Your task to perform on an android device: Do I have any events this weekend? Image 0: 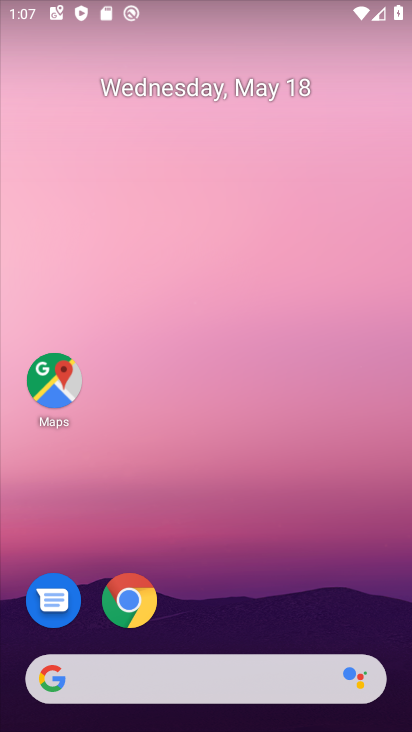
Step 0: drag from (236, 565) to (141, 196)
Your task to perform on an android device: Do I have any events this weekend? Image 1: 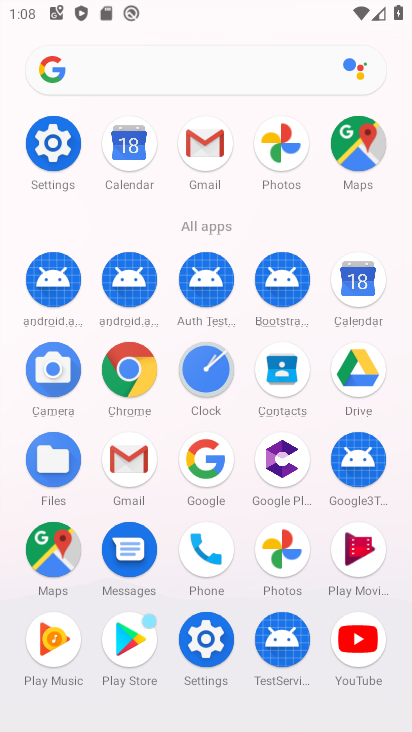
Step 1: click (362, 283)
Your task to perform on an android device: Do I have any events this weekend? Image 2: 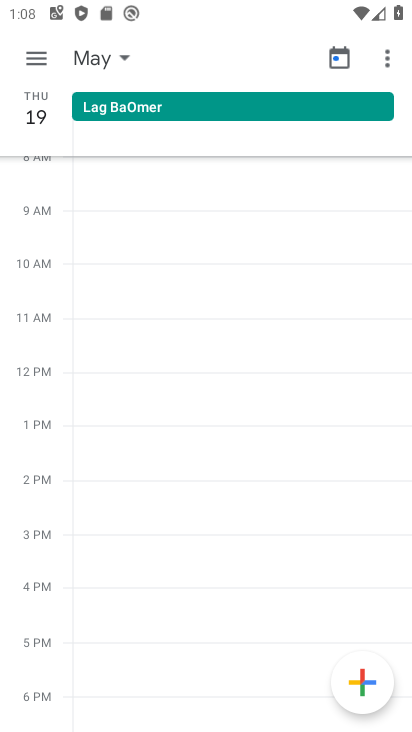
Step 2: click (118, 54)
Your task to perform on an android device: Do I have any events this weekend? Image 3: 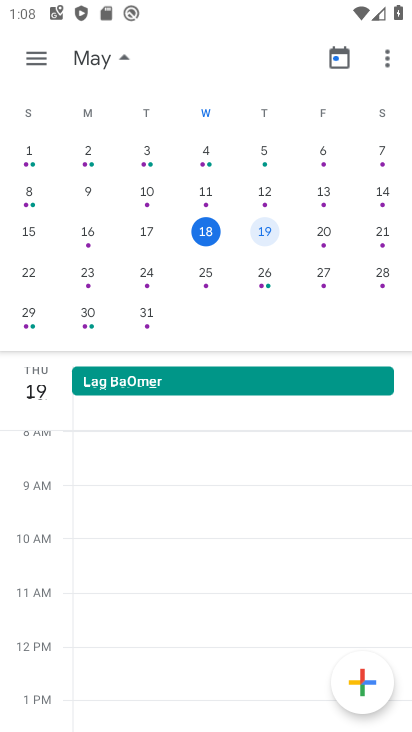
Step 3: click (342, 63)
Your task to perform on an android device: Do I have any events this weekend? Image 4: 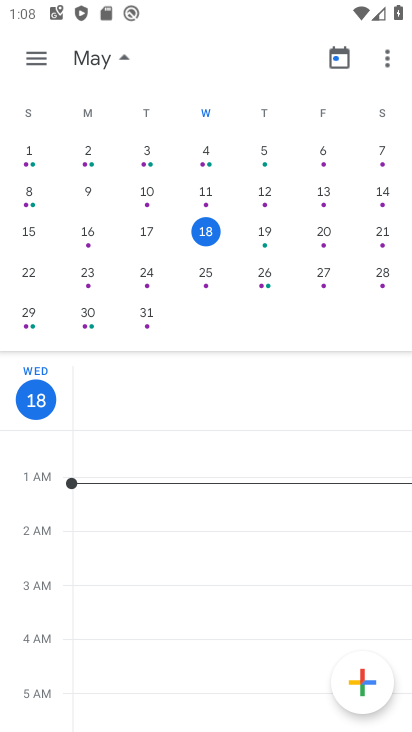
Step 4: click (383, 229)
Your task to perform on an android device: Do I have any events this weekend? Image 5: 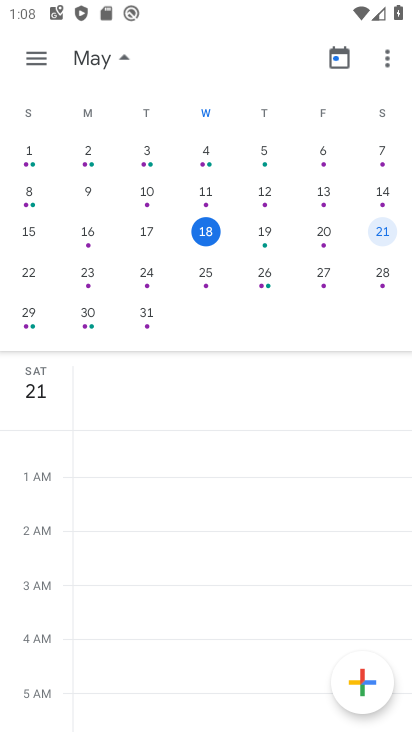
Step 5: click (35, 59)
Your task to perform on an android device: Do I have any events this weekend? Image 6: 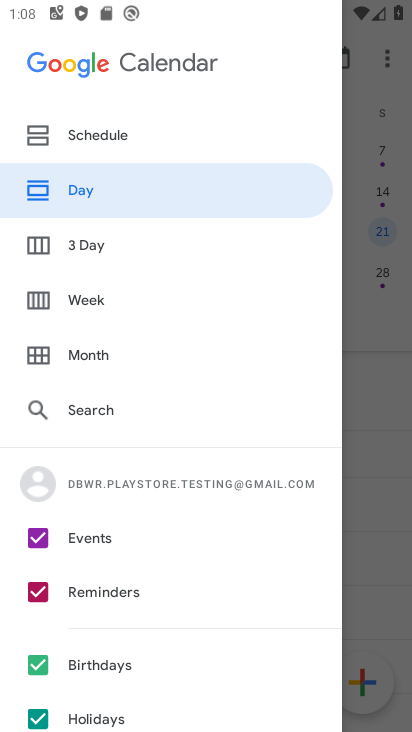
Step 6: click (111, 298)
Your task to perform on an android device: Do I have any events this weekend? Image 7: 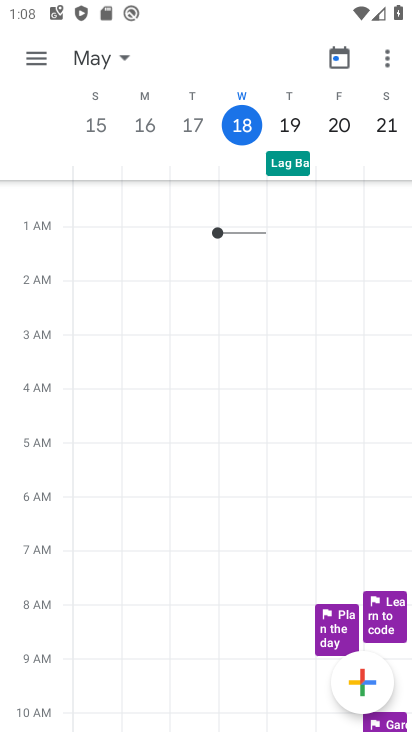
Step 7: task complete